Your task to perform on an android device: toggle improve location accuracy Image 0: 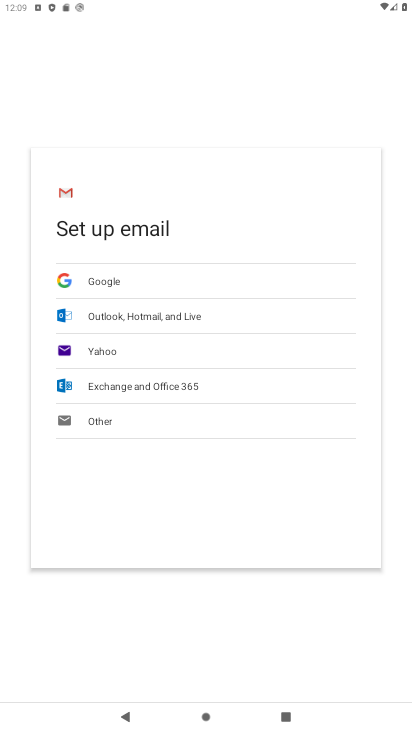
Step 0: press home button
Your task to perform on an android device: toggle improve location accuracy Image 1: 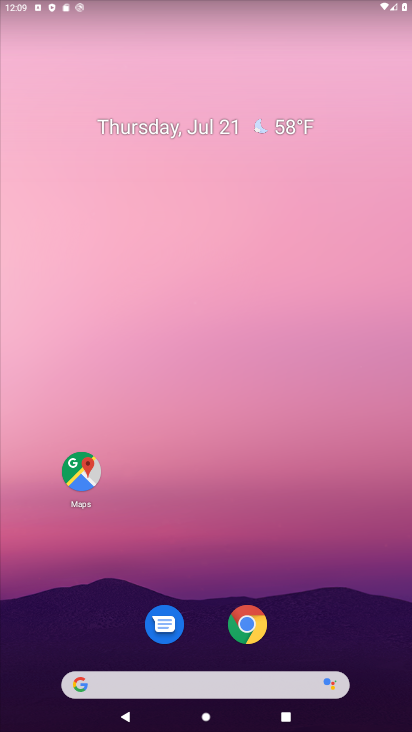
Step 1: drag from (202, 594) to (219, 100)
Your task to perform on an android device: toggle improve location accuracy Image 2: 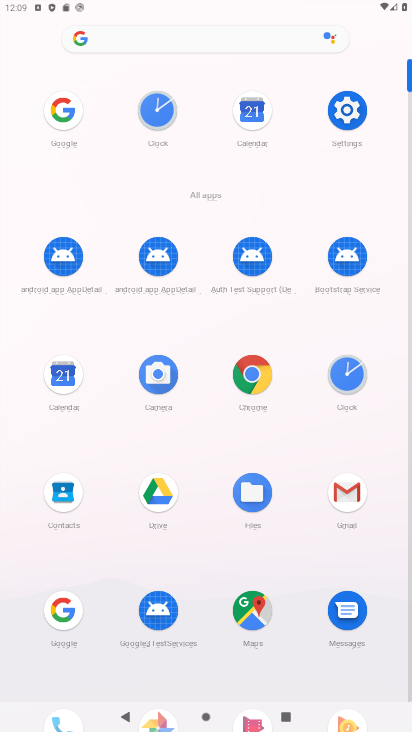
Step 2: click (341, 117)
Your task to perform on an android device: toggle improve location accuracy Image 3: 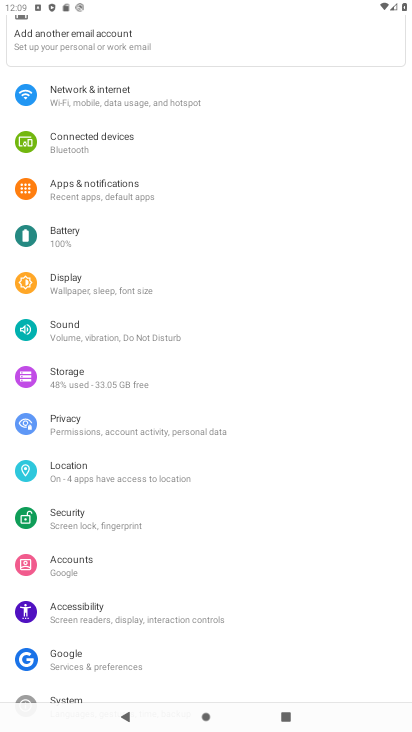
Step 3: click (102, 479)
Your task to perform on an android device: toggle improve location accuracy Image 4: 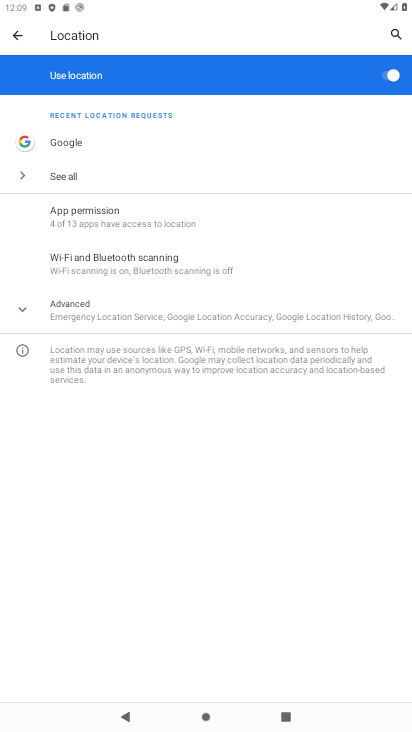
Step 4: click (124, 308)
Your task to perform on an android device: toggle improve location accuracy Image 5: 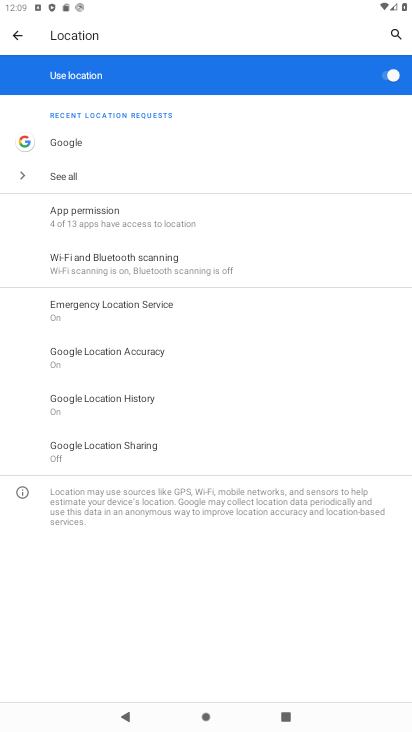
Step 5: click (175, 361)
Your task to perform on an android device: toggle improve location accuracy Image 6: 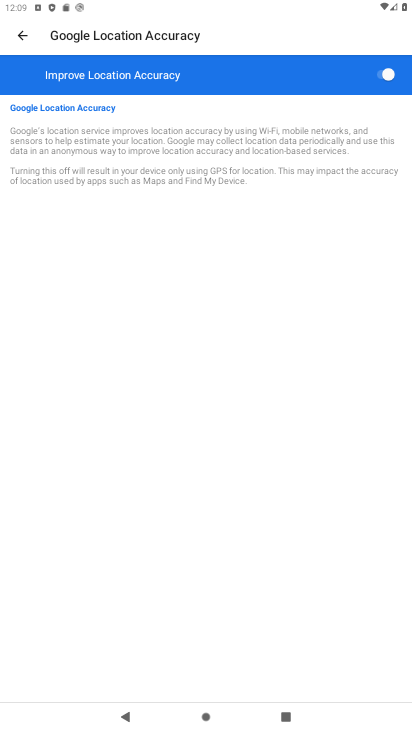
Step 6: task complete